Your task to perform on an android device: Go to Maps Image 0: 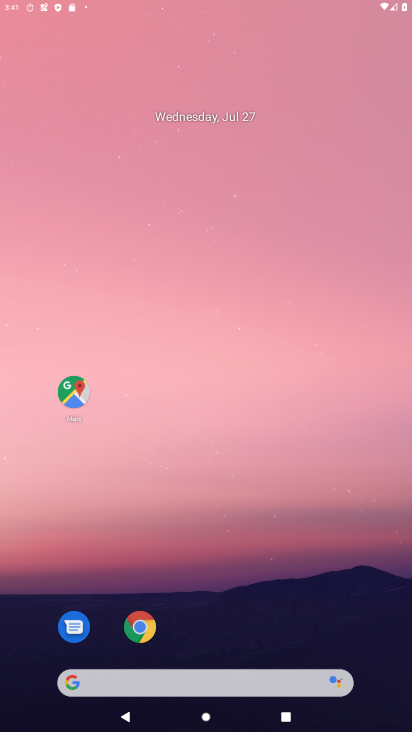
Step 0: click (307, 14)
Your task to perform on an android device: Go to Maps Image 1: 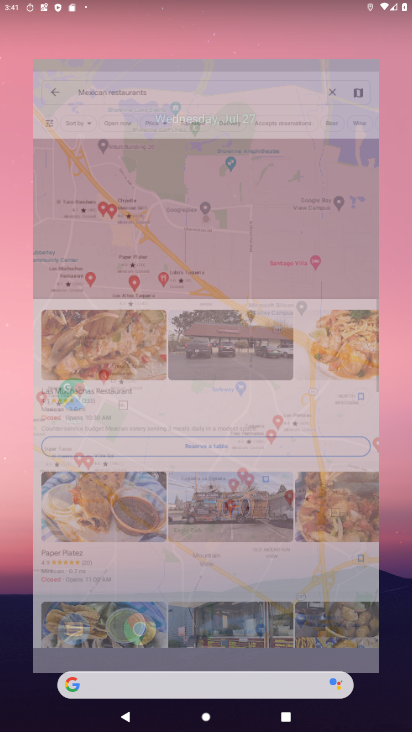
Step 1: task complete